Your task to perform on an android device: Is it going to rain tomorrow? Image 0: 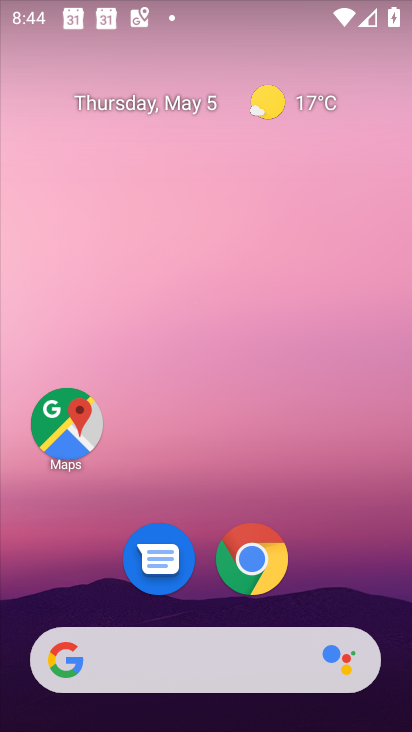
Step 0: click (311, 107)
Your task to perform on an android device: Is it going to rain tomorrow? Image 1: 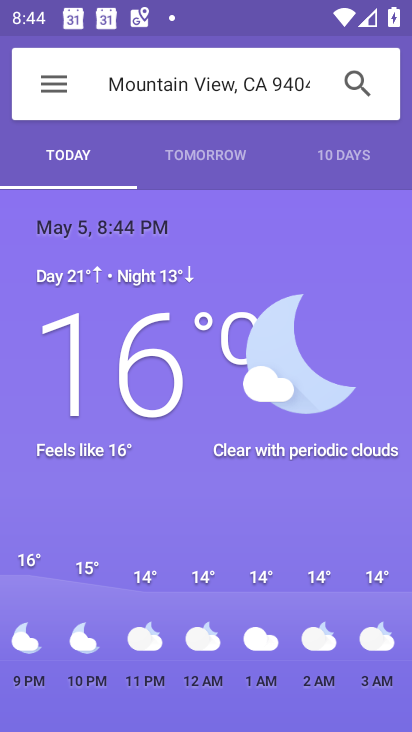
Step 1: click (204, 158)
Your task to perform on an android device: Is it going to rain tomorrow? Image 2: 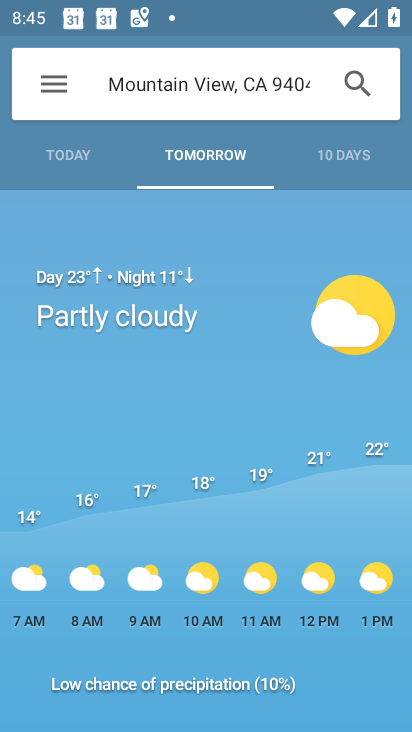
Step 2: task complete